Your task to perform on an android device: check storage Image 0: 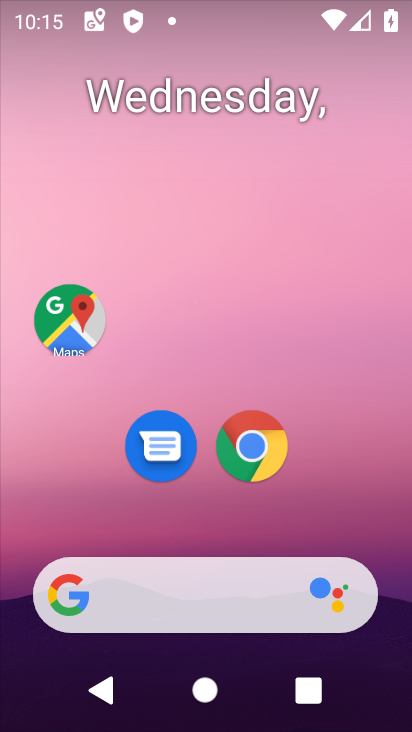
Step 0: drag from (198, 287) to (192, 118)
Your task to perform on an android device: check storage Image 1: 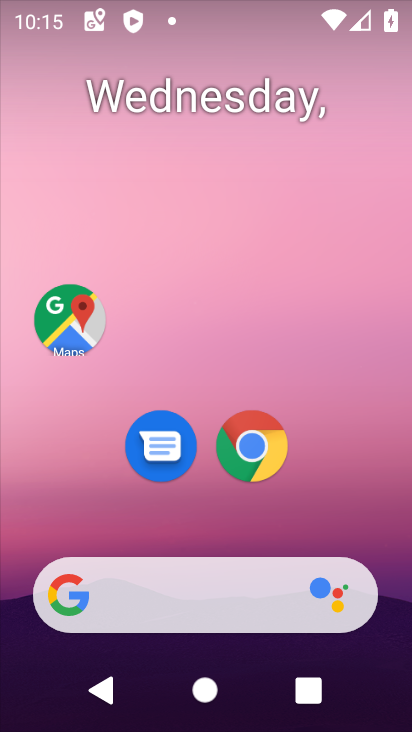
Step 1: drag from (179, 525) to (151, 5)
Your task to perform on an android device: check storage Image 2: 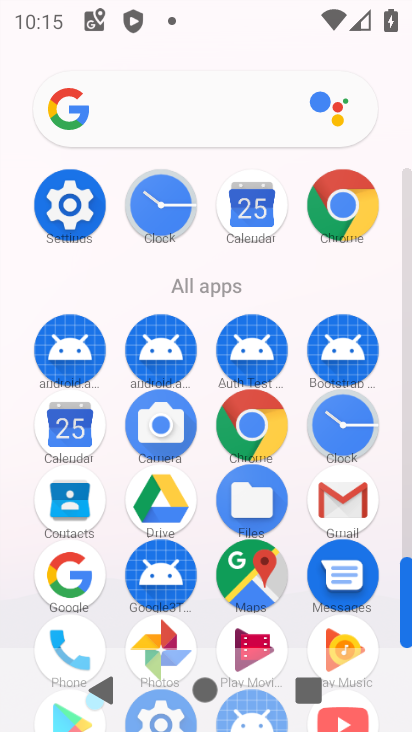
Step 2: click (58, 212)
Your task to perform on an android device: check storage Image 3: 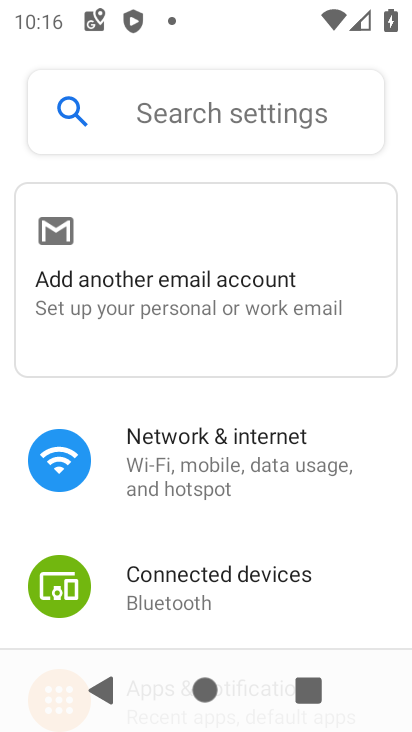
Step 3: drag from (240, 549) to (303, 2)
Your task to perform on an android device: check storage Image 4: 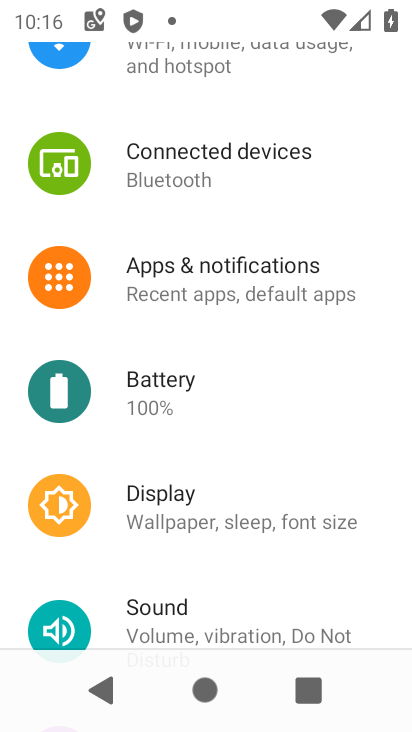
Step 4: drag from (165, 576) to (232, 99)
Your task to perform on an android device: check storage Image 5: 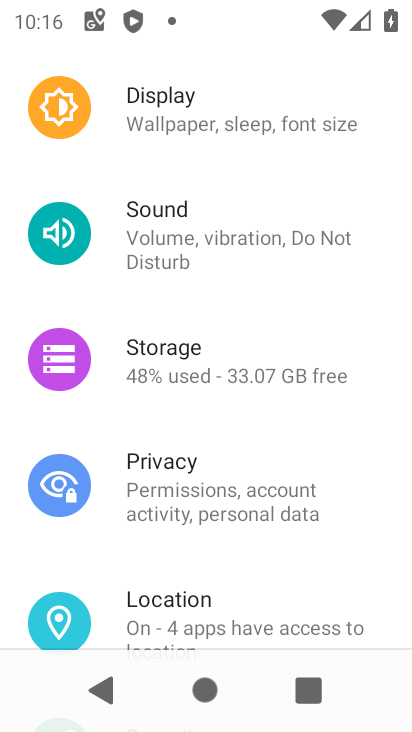
Step 5: click (129, 386)
Your task to perform on an android device: check storage Image 6: 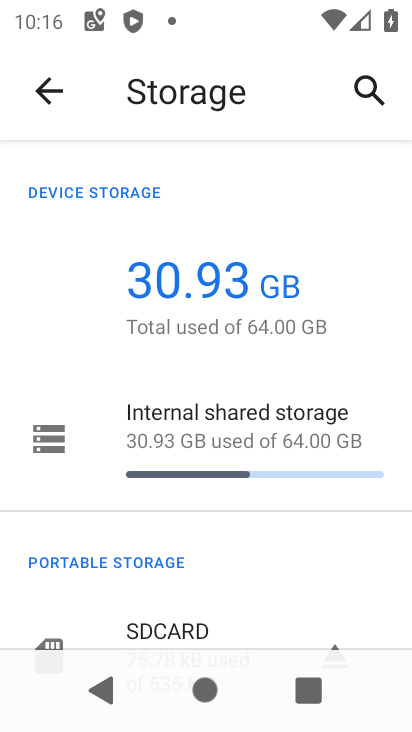
Step 6: task complete